Your task to perform on an android device: Clear all items from cart on newegg.com. Image 0: 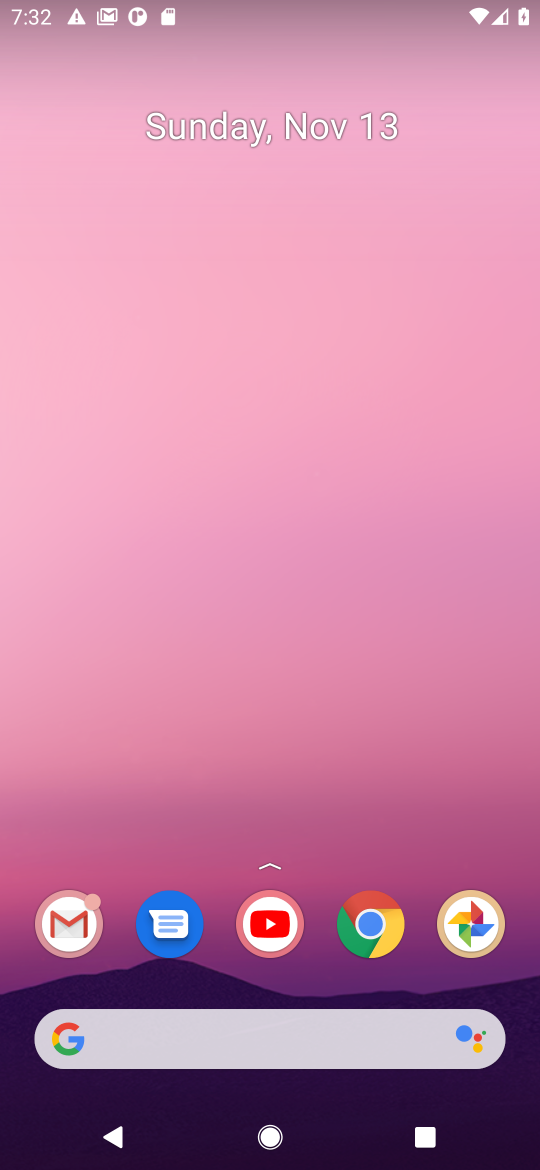
Step 0: click (375, 932)
Your task to perform on an android device: Clear all items from cart on newegg.com. Image 1: 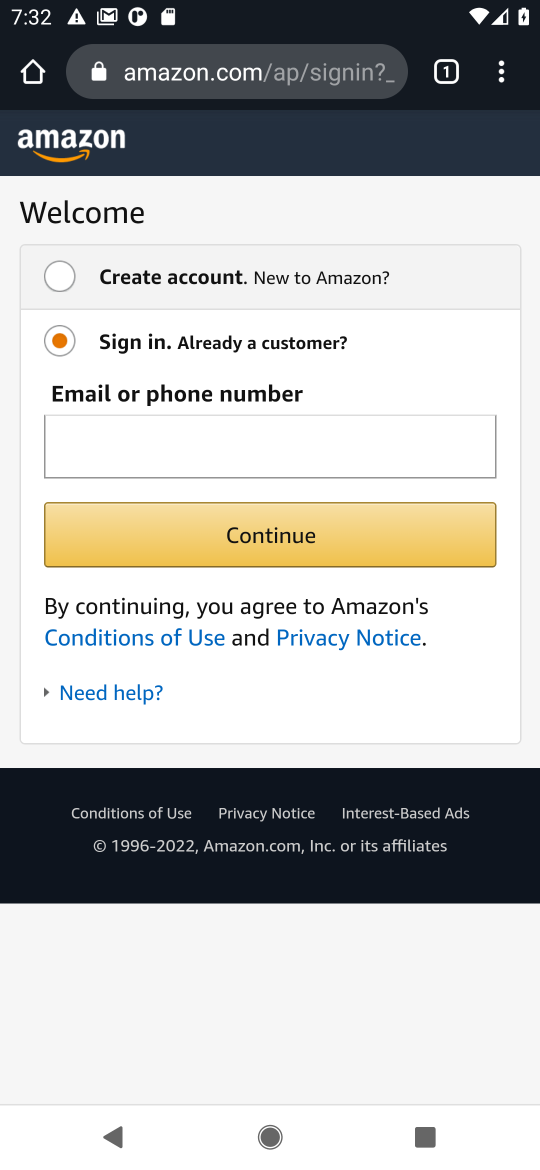
Step 1: click (198, 48)
Your task to perform on an android device: Clear all items from cart on newegg.com. Image 2: 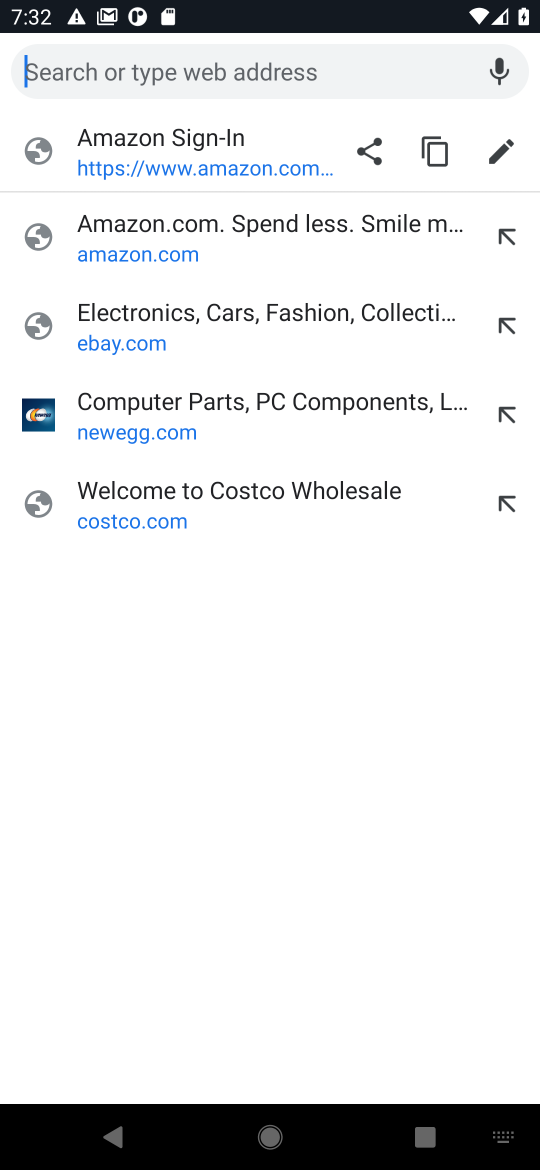
Step 2: click (103, 429)
Your task to perform on an android device: Clear all items from cart on newegg.com. Image 3: 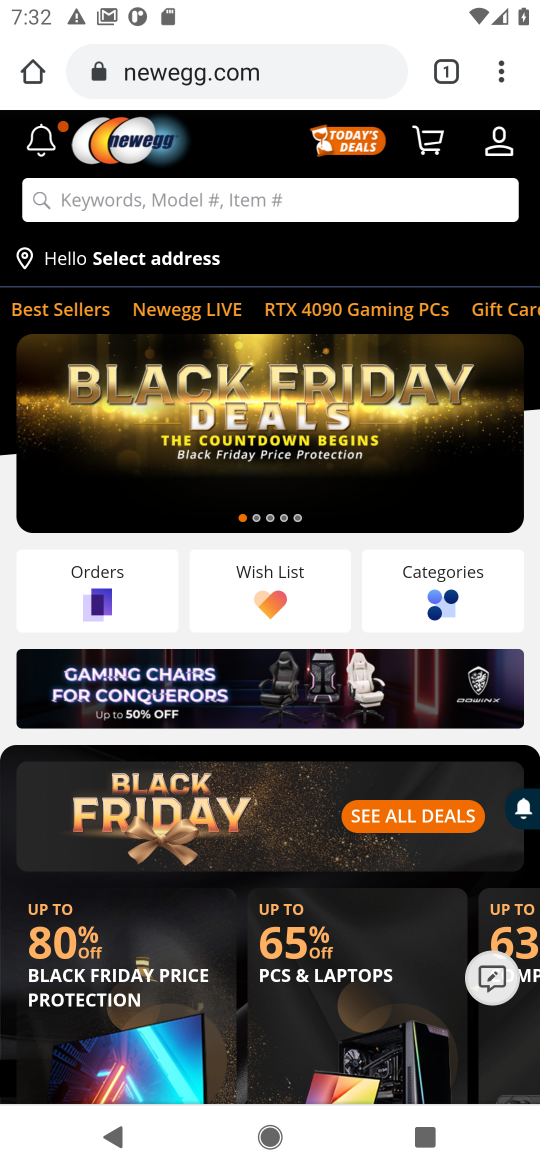
Step 3: click (428, 145)
Your task to perform on an android device: Clear all items from cart on newegg.com. Image 4: 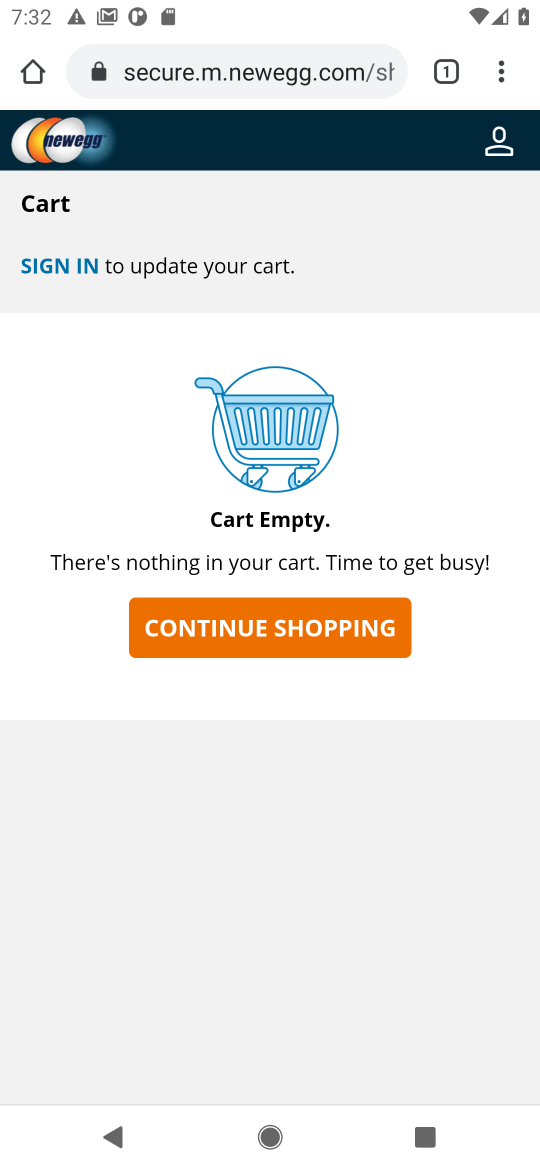
Step 4: task complete